Your task to perform on an android device: visit the assistant section in the google photos Image 0: 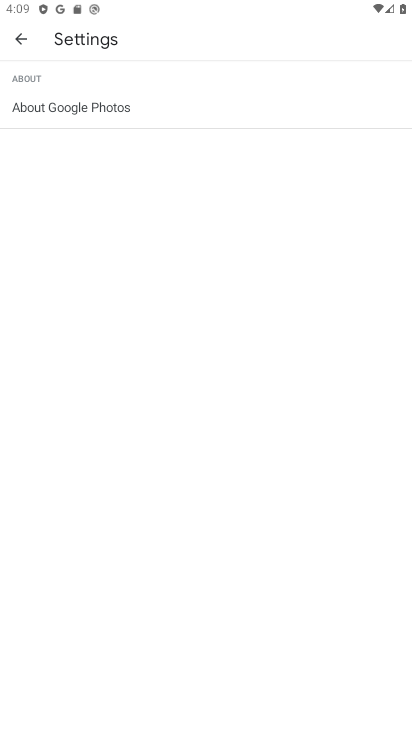
Step 0: click (23, 30)
Your task to perform on an android device: visit the assistant section in the google photos Image 1: 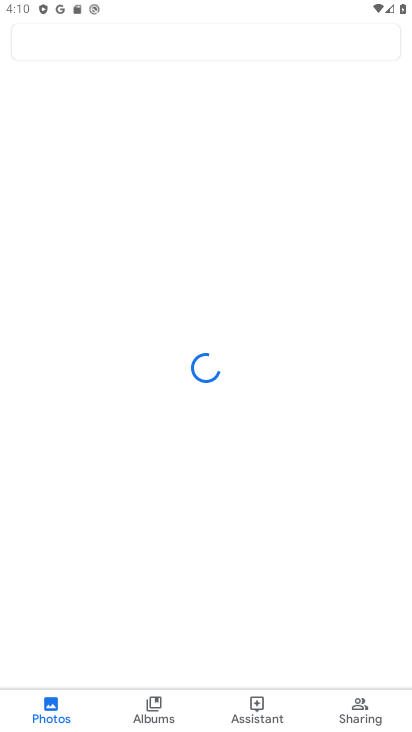
Step 1: click (260, 703)
Your task to perform on an android device: visit the assistant section in the google photos Image 2: 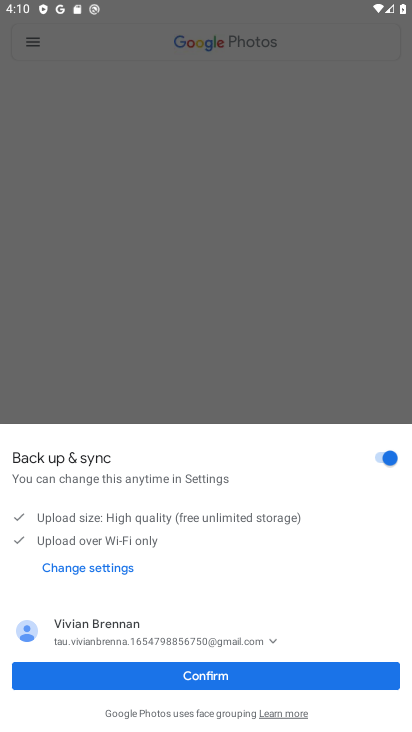
Step 2: task complete